Your task to perform on an android device: turn on improve location accuracy Image 0: 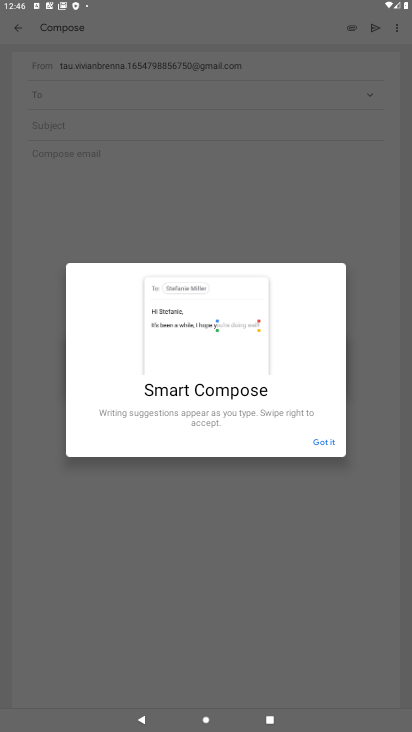
Step 0: press home button
Your task to perform on an android device: turn on improve location accuracy Image 1: 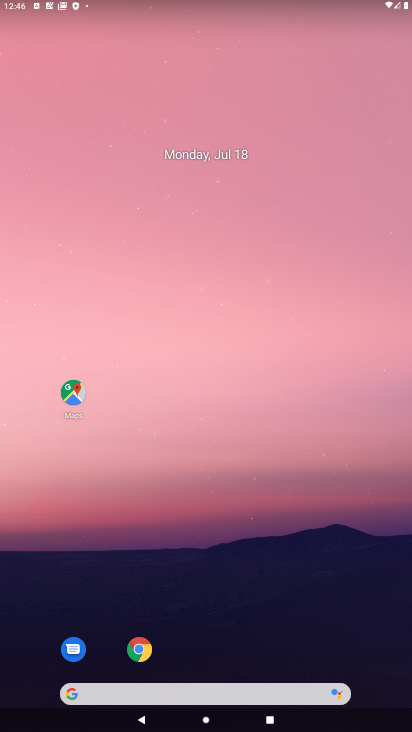
Step 1: drag from (327, 665) to (296, 80)
Your task to perform on an android device: turn on improve location accuracy Image 2: 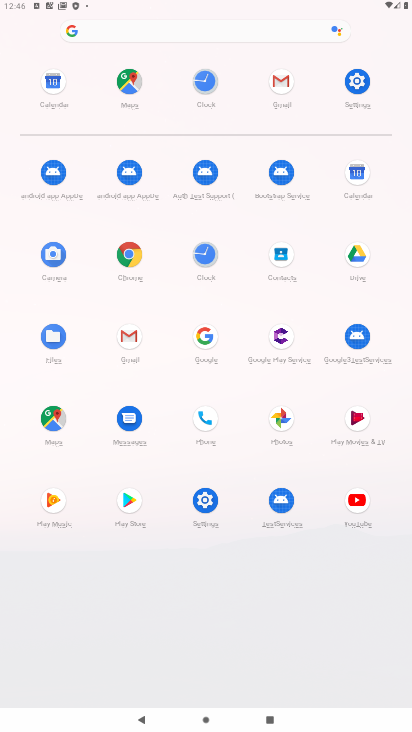
Step 2: click (204, 501)
Your task to perform on an android device: turn on improve location accuracy Image 3: 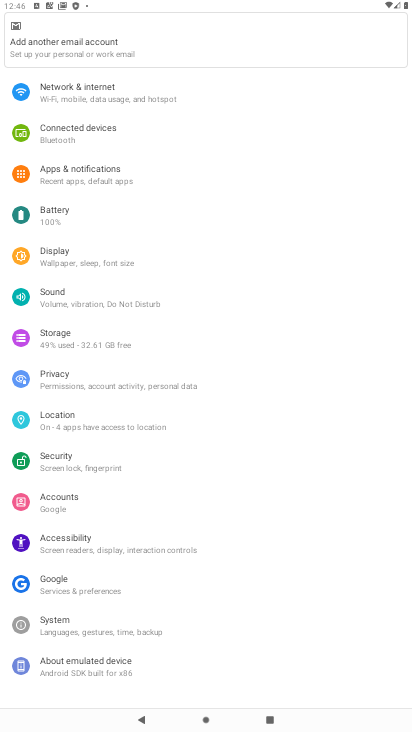
Step 3: click (61, 421)
Your task to perform on an android device: turn on improve location accuracy Image 4: 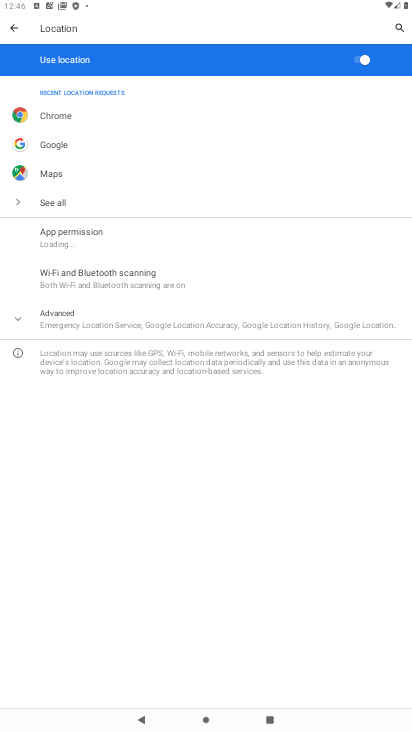
Step 4: click (11, 320)
Your task to perform on an android device: turn on improve location accuracy Image 5: 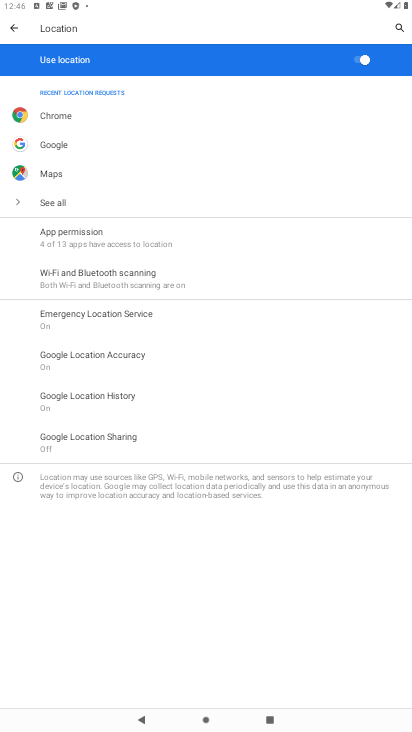
Step 5: click (101, 352)
Your task to perform on an android device: turn on improve location accuracy Image 6: 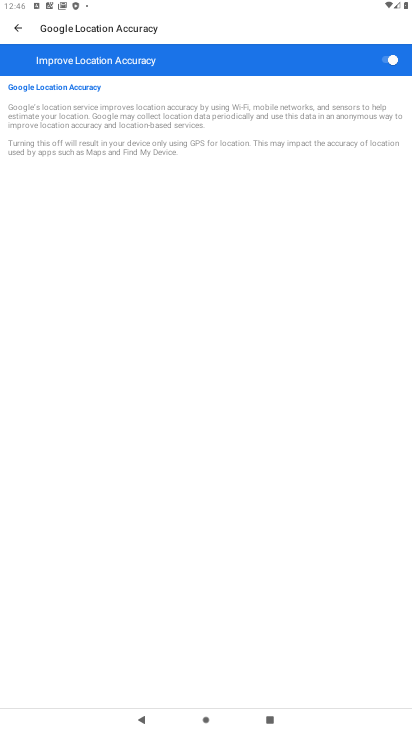
Step 6: task complete